Your task to perform on an android device: turn vacation reply on in the gmail app Image 0: 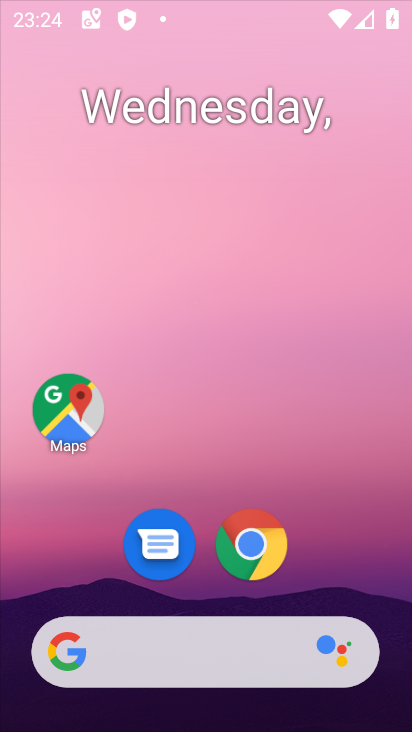
Step 0: click (324, 150)
Your task to perform on an android device: turn vacation reply on in the gmail app Image 1: 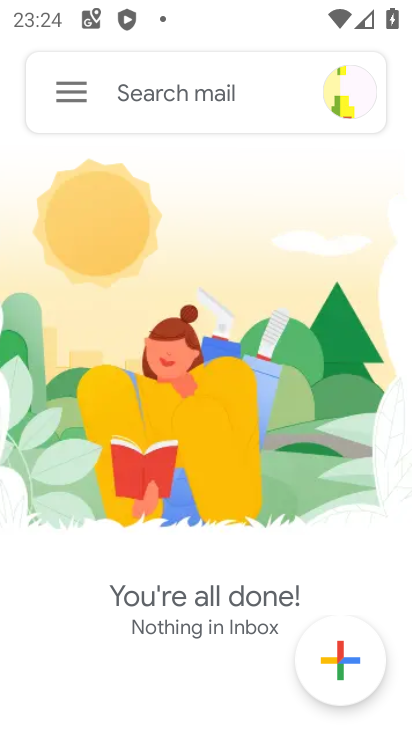
Step 1: press home button
Your task to perform on an android device: turn vacation reply on in the gmail app Image 2: 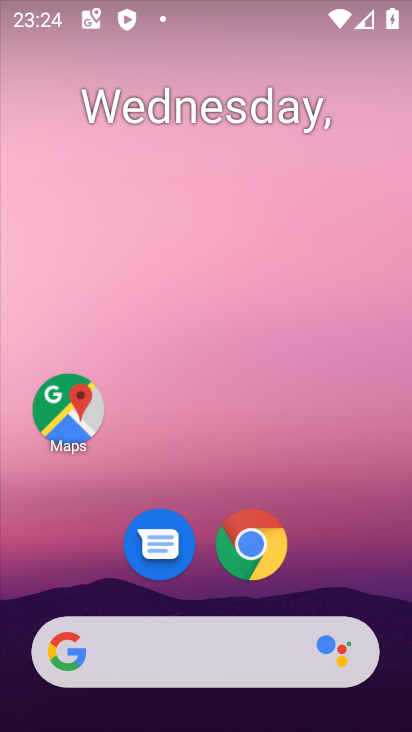
Step 2: drag from (314, 528) to (306, 293)
Your task to perform on an android device: turn vacation reply on in the gmail app Image 3: 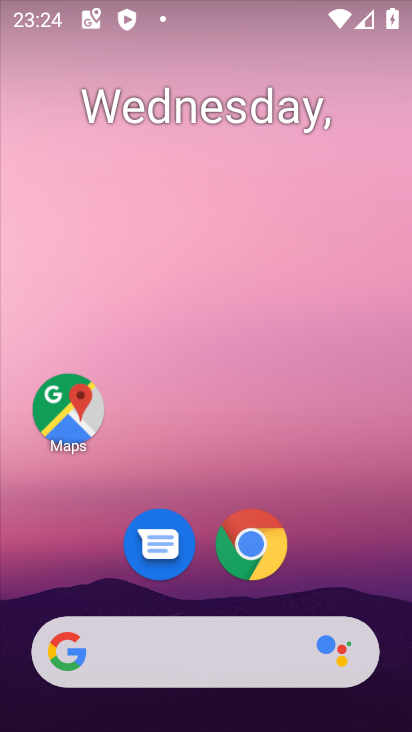
Step 3: drag from (355, 505) to (361, 14)
Your task to perform on an android device: turn vacation reply on in the gmail app Image 4: 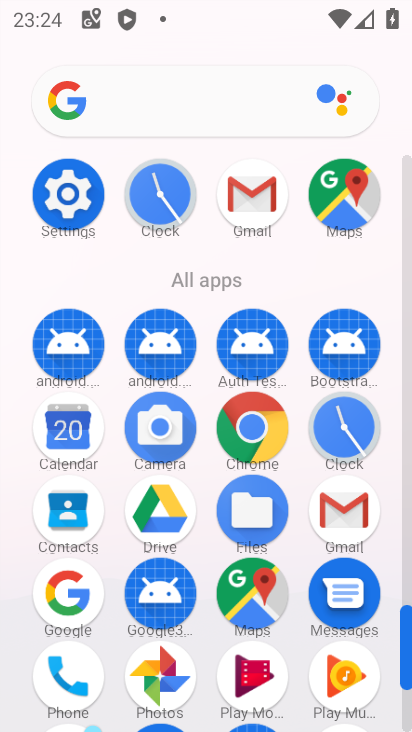
Step 4: click (259, 201)
Your task to perform on an android device: turn vacation reply on in the gmail app Image 5: 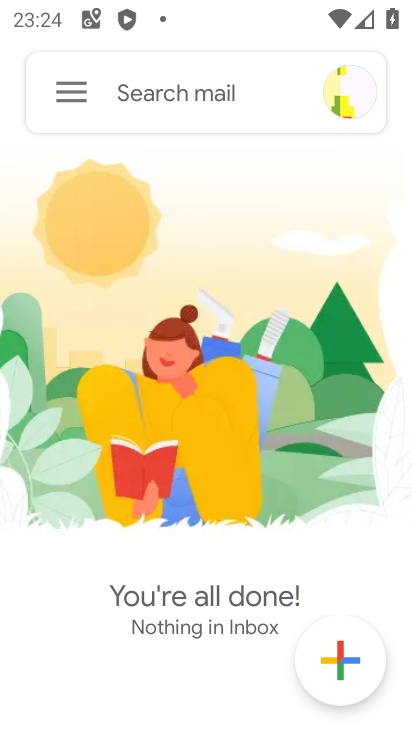
Step 5: click (59, 84)
Your task to perform on an android device: turn vacation reply on in the gmail app Image 6: 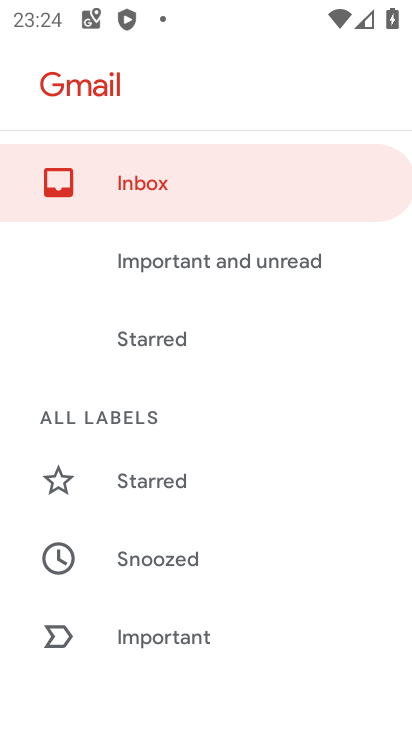
Step 6: drag from (205, 446) to (207, 145)
Your task to perform on an android device: turn vacation reply on in the gmail app Image 7: 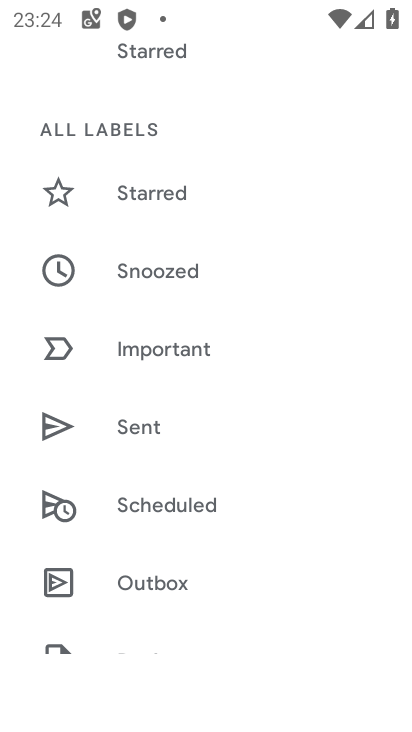
Step 7: drag from (284, 606) to (265, 222)
Your task to perform on an android device: turn vacation reply on in the gmail app Image 8: 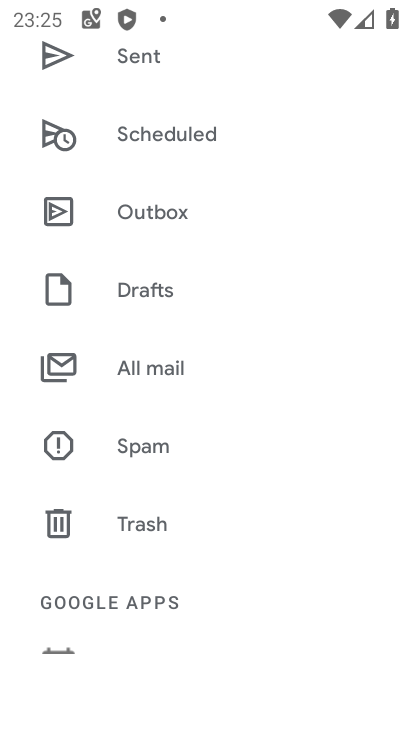
Step 8: drag from (274, 577) to (296, 242)
Your task to perform on an android device: turn vacation reply on in the gmail app Image 9: 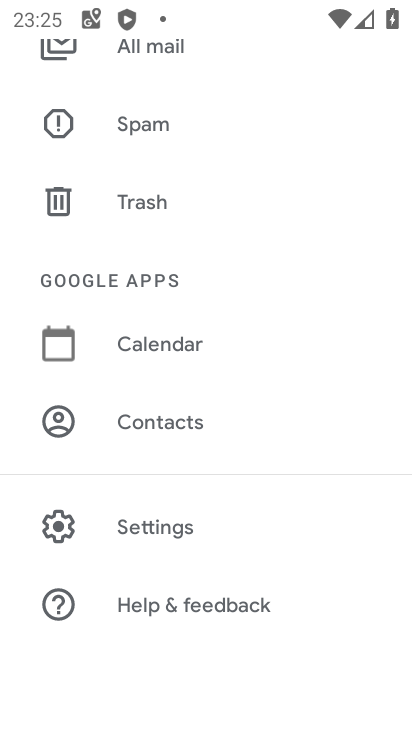
Step 9: click (182, 523)
Your task to perform on an android device: turn vacation reply on in the gmail app Image 10: 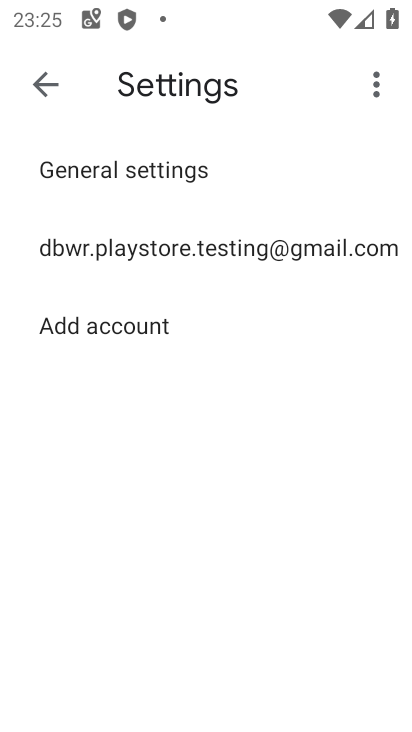
Step 10: click (359, 264)
Your task to perform on an android device: turn vacation reply on in the gmail app Image 11: 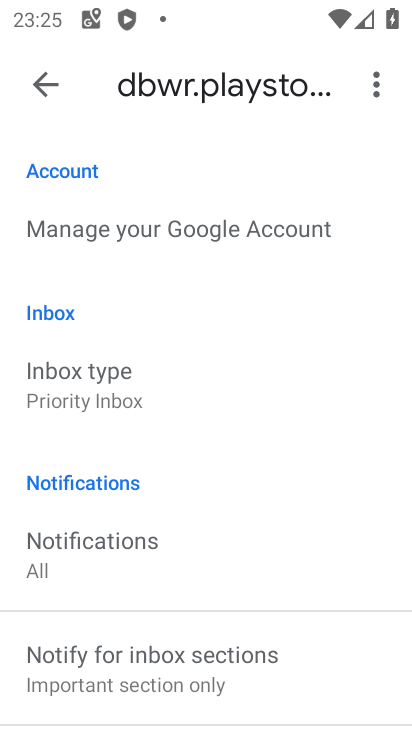
Step 11: drag from (309, 714) to (69, 3)
Your task to perform on an android device: turn vacation reply on in the gmail app Image 12: 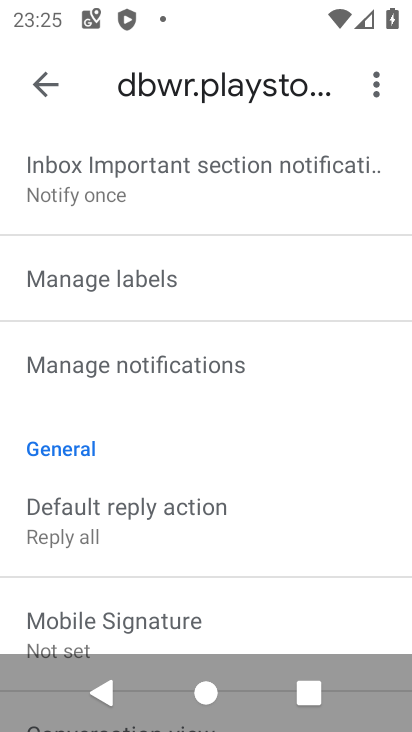
Step 12: drag from (257, 514) to (227, 259)
Your task to perform on an android device: turn vacation reply on in the gmail app Image 13: 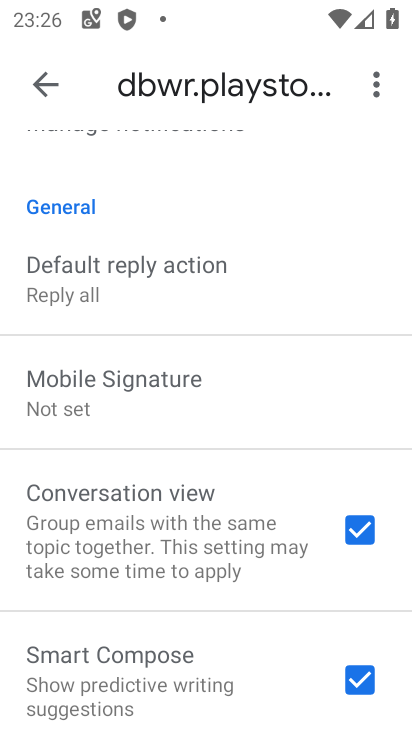
Step 13: drag from (236, 685) to (239, 249)
Your task to perform on an android device: turn vacation reply on in the gmail app Image 14: 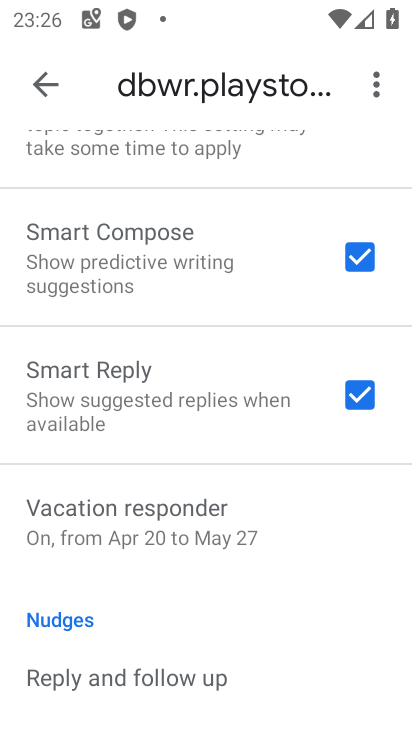
Step 14: click (278, 511)
Your task to perform on an android device: turn vacation reply on in the gmail app Image 15: 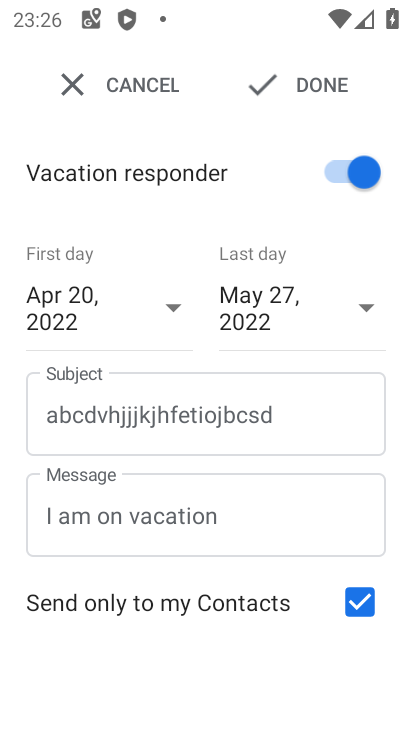
Step 15: click (149, 317)
Your task to perform on an android device: turn vacation reply on in the gmail app Image 16: 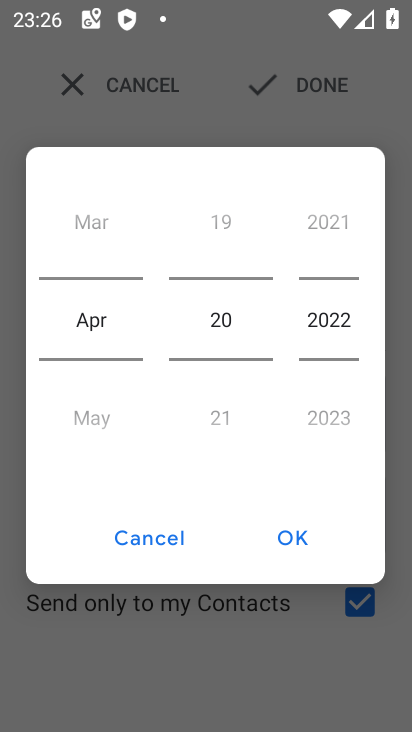
Step 16: drag from (241, 388) to (223, 222)
Your task to perform on an android device: turn vacation reply on in the gmail app Image 17: 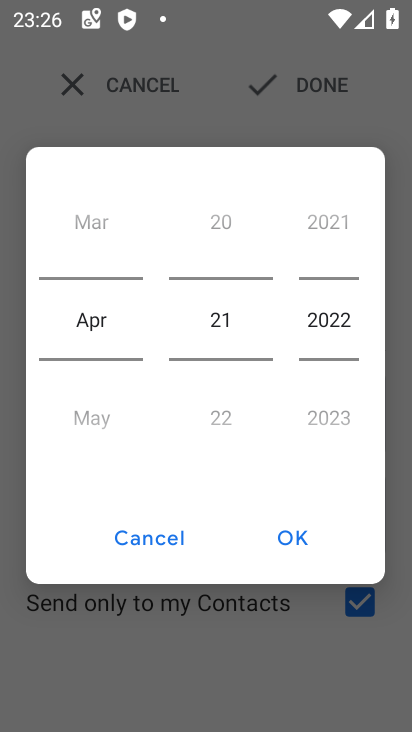
Step 17: click (313, 546)
Your task to perform on an android device: turn vacation reply on in the gmail app Image 18: 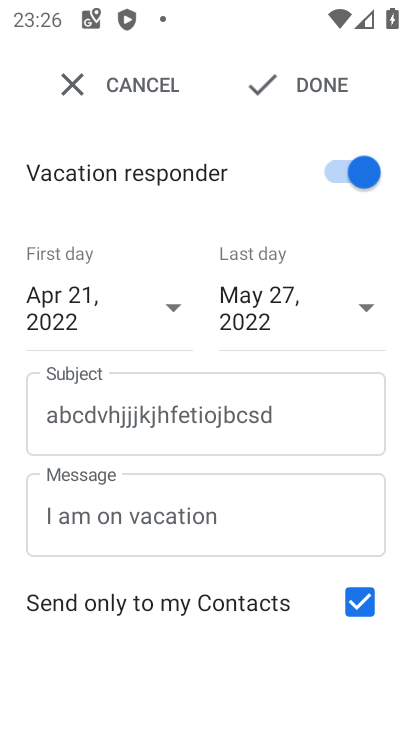
Step 18: click (311, 92)
Your task to perform on an android device: turn vacation reply on in the gmail app Image 19: 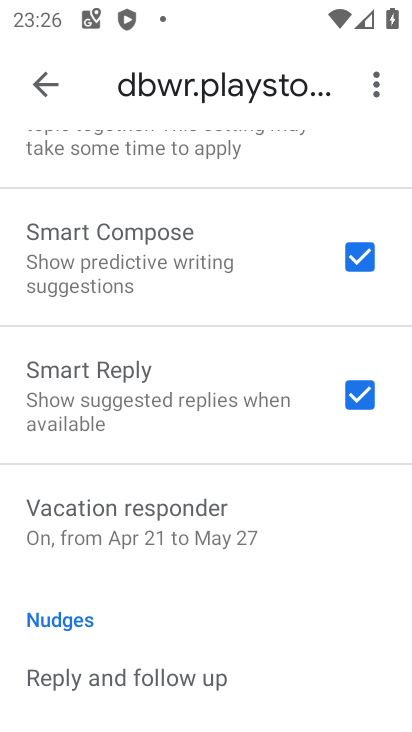
Step 19: task complete